Your task to perform on an android device: delete location history Image 0: 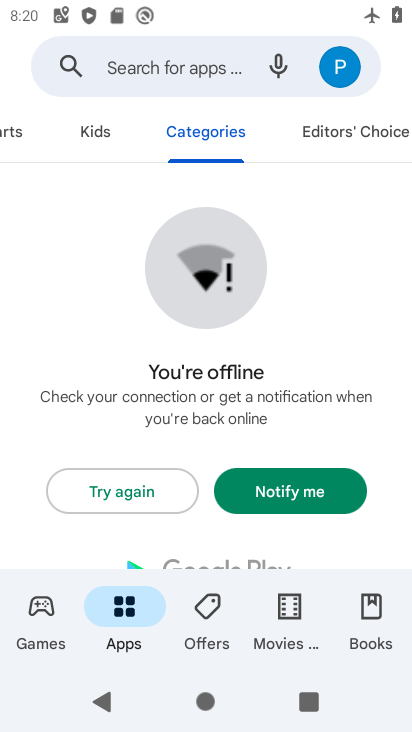
Step 0: task impossible